Your task to perform on an android device: What's the weather going to be tomorrow? Image 0: 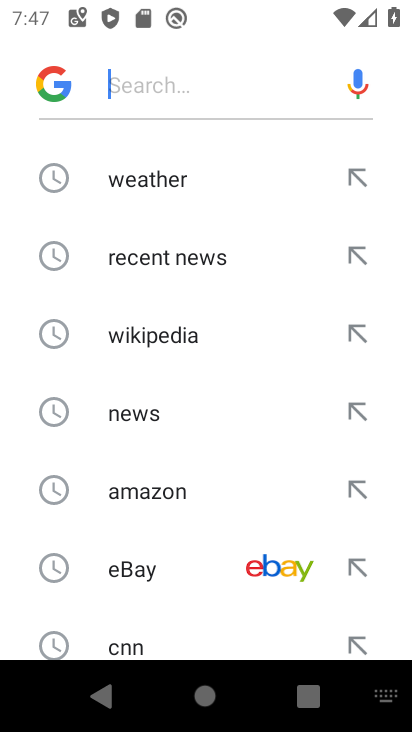
Step 0: click (144, 183)
Your task to perform on an android device: What's the weather going to be tomorrow? Image 1: 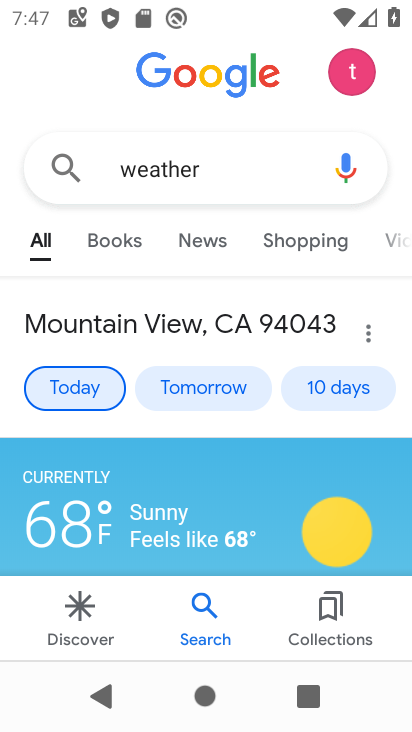
Step 1: click (196, 400)
Your task to perform on an android device: What's the weather going to be tomorrow? Image 2: 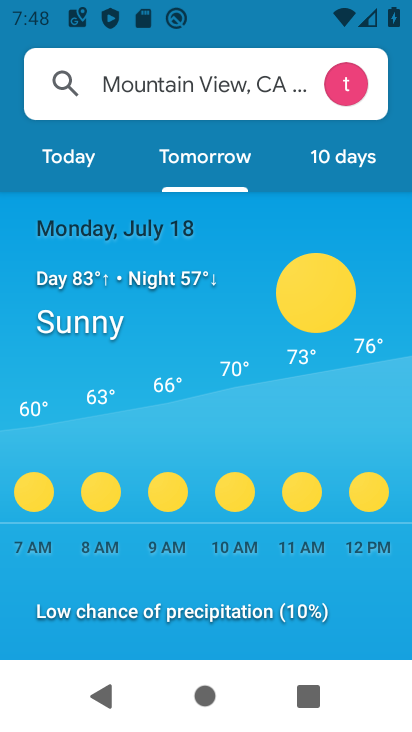
Step 2: task complete